Your task to perform on an android device: open a bookmark in the chrome app Image 0: 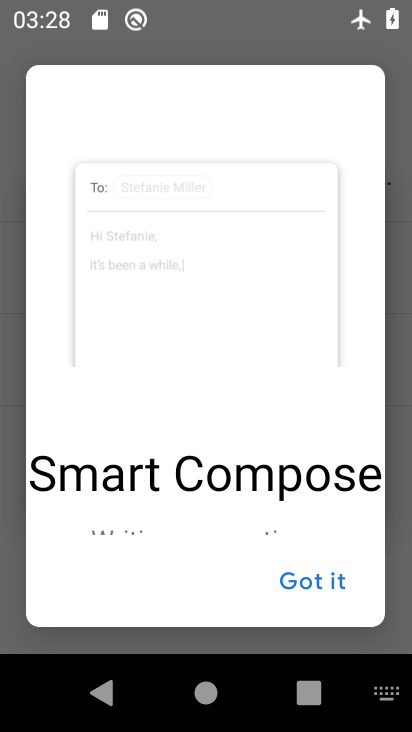
Step 0: press home button
Your task to perform on an android device: open a bookmark in the chrome app Image 1: 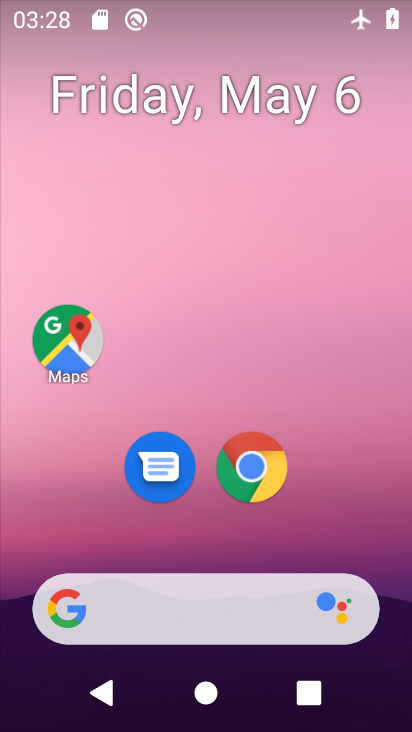
Step 1: click (250, 468)
Your task to perform on an android device: open a bookmark in the chrome app Image 2: 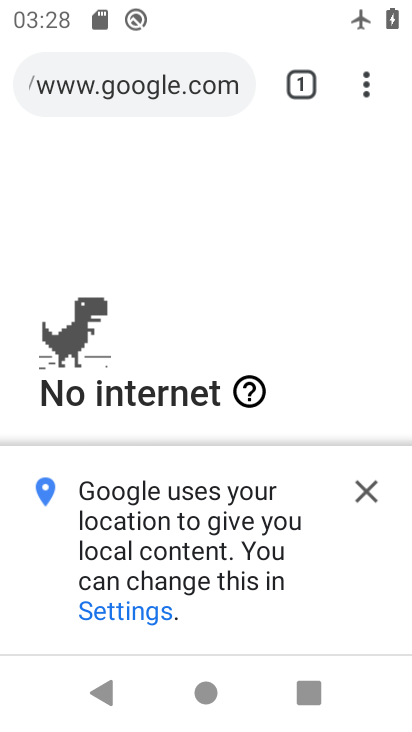
Step 2: task complete